Your task to perform on an android device: Open Amazon Image 0: 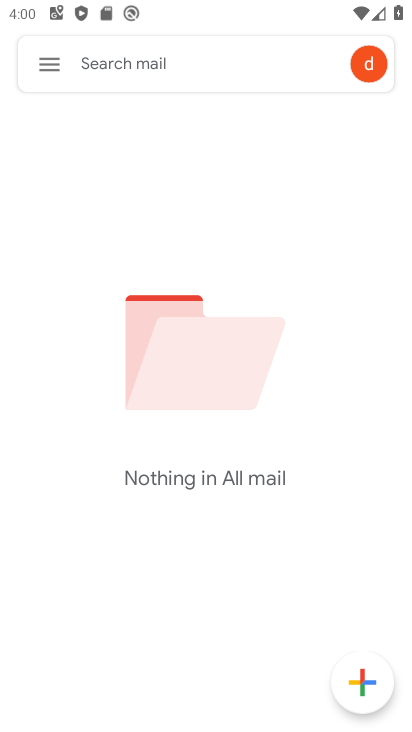
Step 0: press home button
Your task to perform on an android device: Open Amazon Image 1: 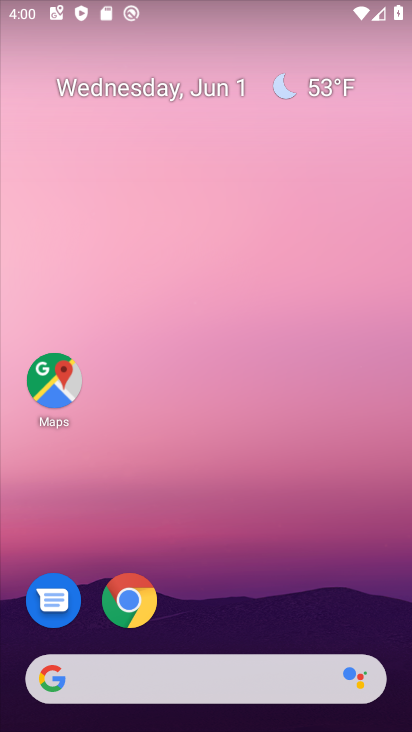
Step 1: click (139, 597)
Your task to perform on an android device: Open Amazon Image 2: 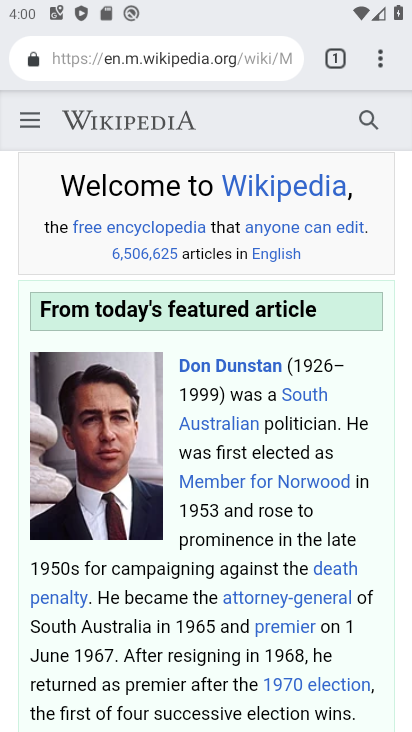
Step 2: click (275, 56)
Your task to perform on an android device: Open Amazon Image 3: 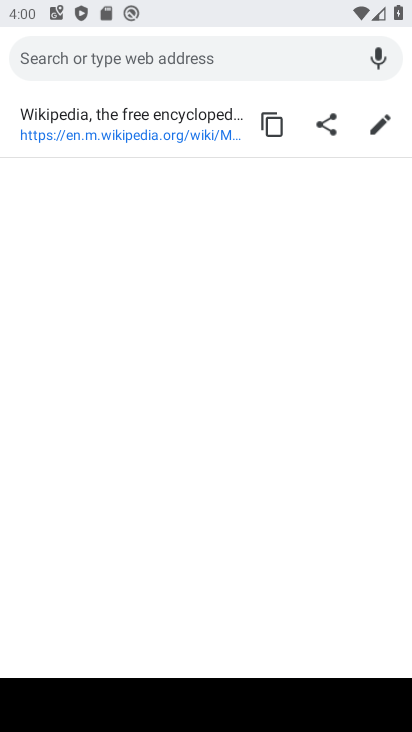
Step 3: type "amazon"
Your task to perform on an android device: Open Amazon Image 4: 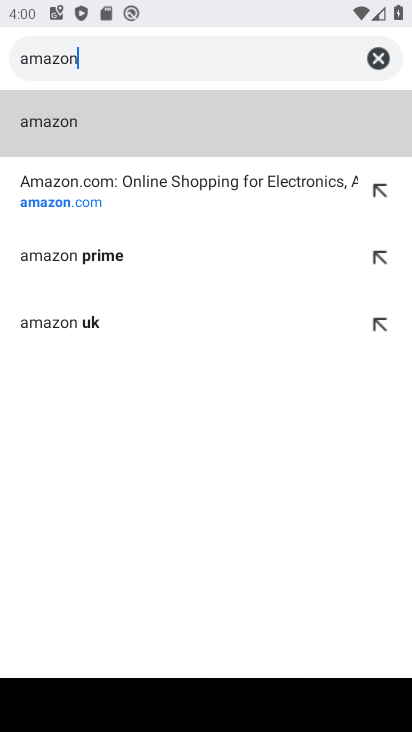
Step 4: click (57, 101)
Your task to perform on an android device: Open Amazon Image 5: 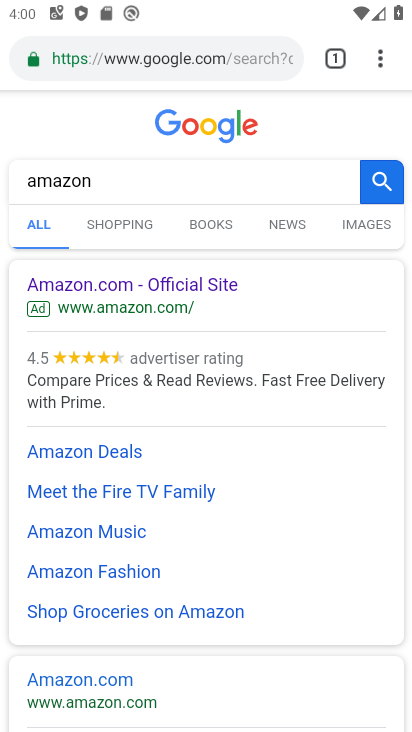
Step 5: click (97, 287)
Your task to perform on an android device: Open Amazon Image 6: 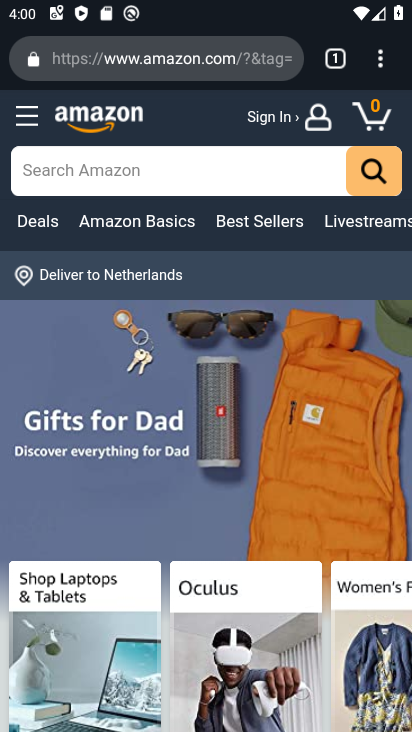
Step 6: task complete